Your task to perform on an android device: Go to Maps Image 0: 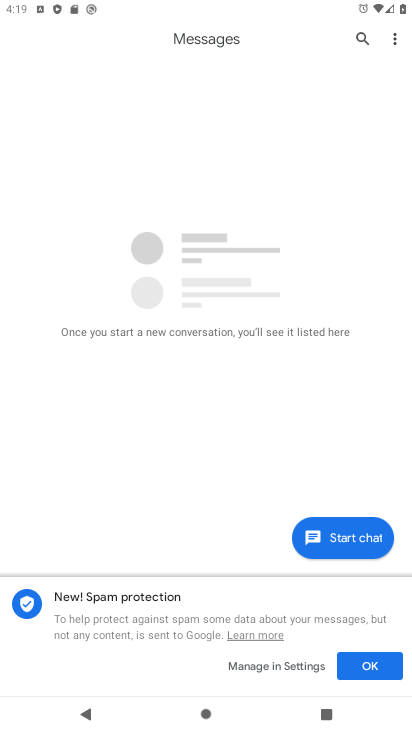
Step 0: press home button
Your task to perform on an android device: Go to Maps Image 1: 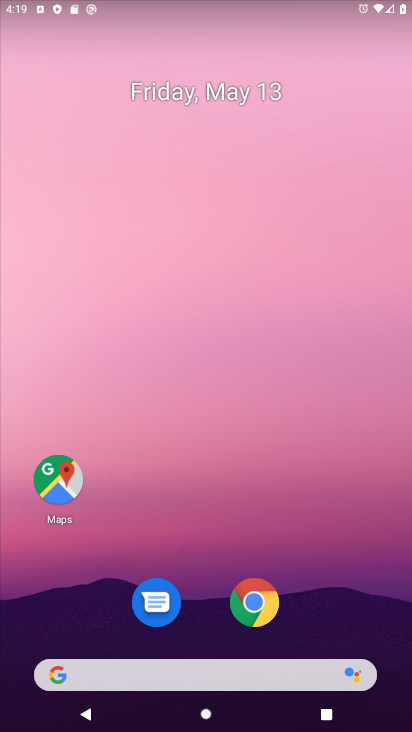
Step 1: click (49, 478)
Your task to perform on an android device: Go to Maps Image 2: 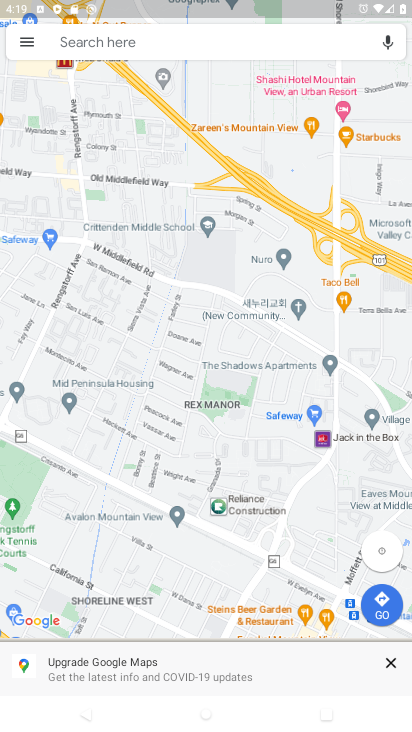
Step 2: task complete